Your task to perform on an android device: turn pop-ups off in chrome Image 0: 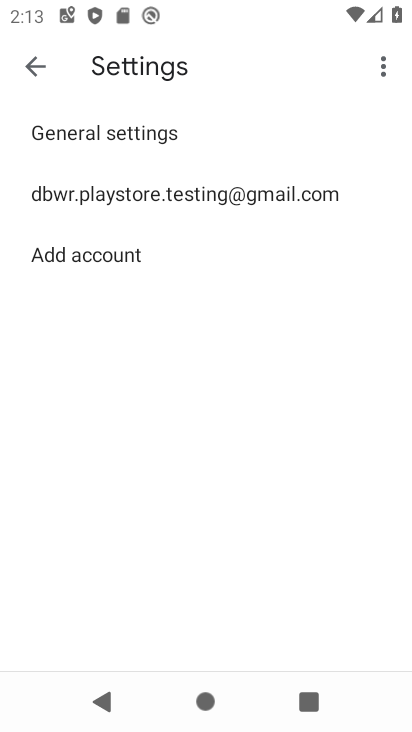
Step 0: press home button
Your task to perform on an android device: turn pop-ups off in chrome Image 1: 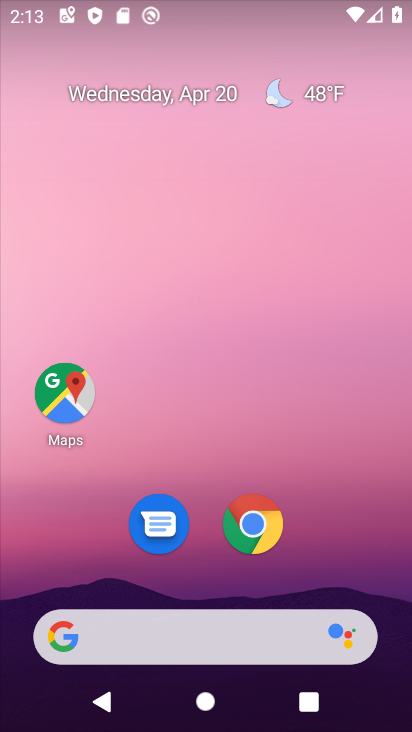
Step 1: click (256, 520)
Your task to perform on an android device: turn pop-ups off in chrome Image 2: 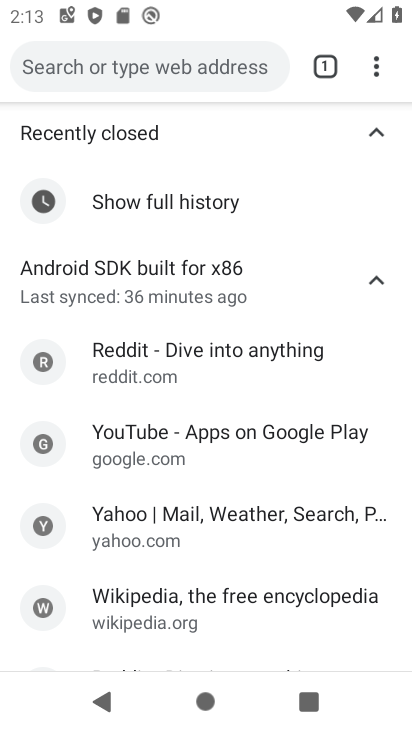
Step 2: click (381, 57)
Your task to perform on an android device: turn pop-ups off in chrome Image 3: 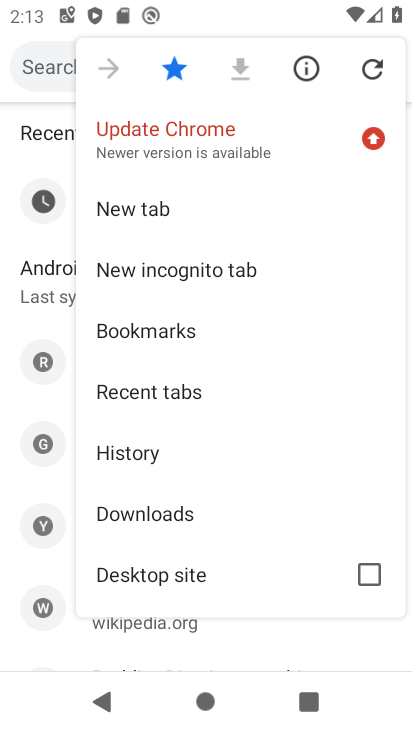
Step 3: drag from (224, 558) to (190, 225)
Your task to perform on an android device: turn pop-ups off in chrome Image 4: 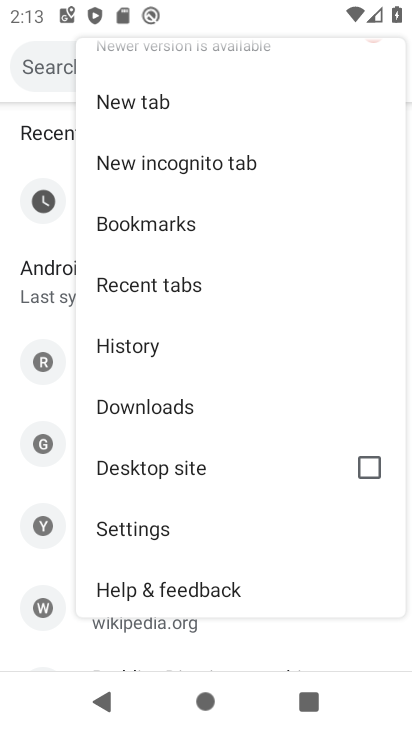
Step 4: click (220, 524)
Your task to perform on an android device: turn pop-ups off in chrome Image 5: 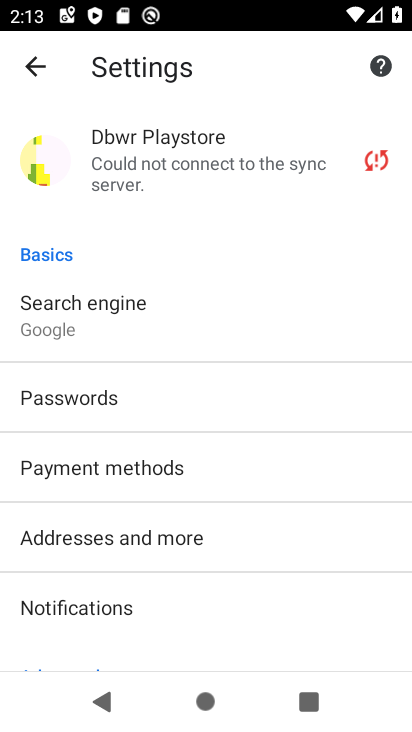
Step 5: drag from (266, 588) to (241, 127)
Your task to perform on an android device: turn pop-ups off in chrome Image 6: 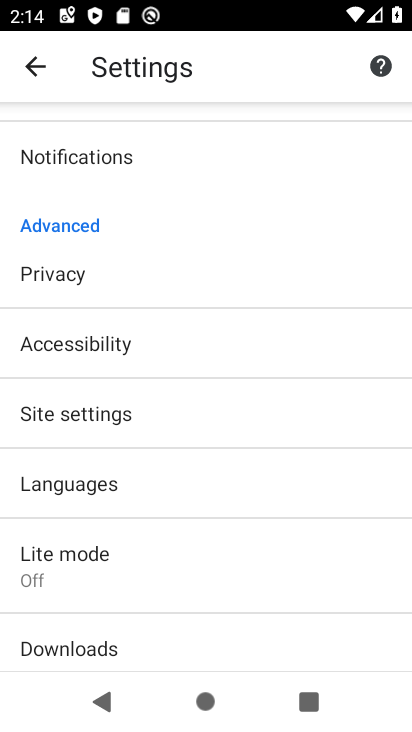
Step 6: click (217, 409)
Your task to perform on an android device: turn pop-ups off in chrome Image 7: 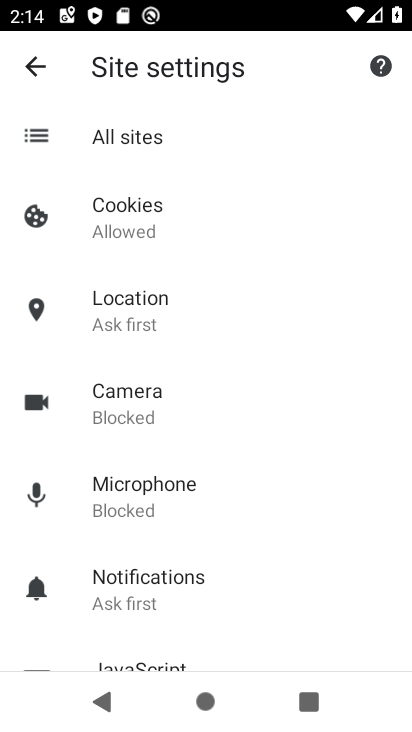
Step 7: drag from (301, 630) to (258, 206)
Your task to perform on an android device: turn pop-ups off in chrome Image 8: 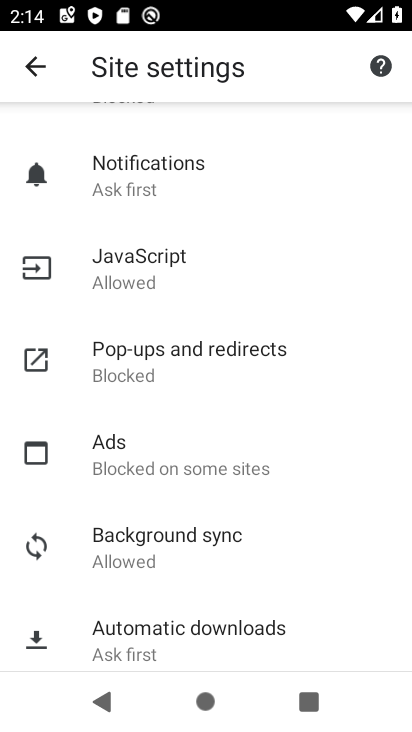
Step 8: click (254, 342)
Your task to perform on an android device: turn pop-ups off in chrome Image 9: 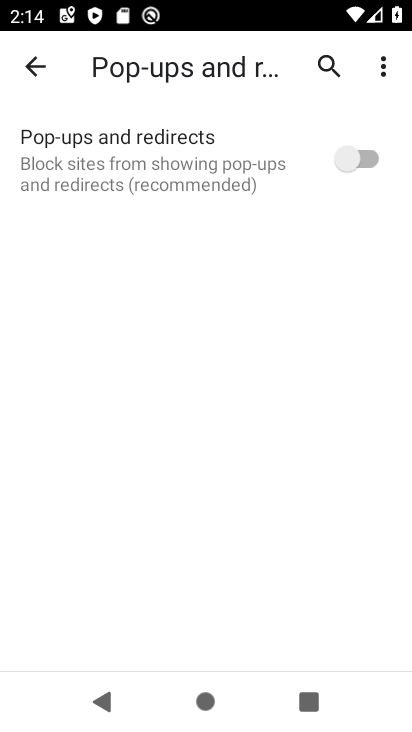
Step 9: task complete